Your task to perform on an android device: Go to wifi settings Image 0: 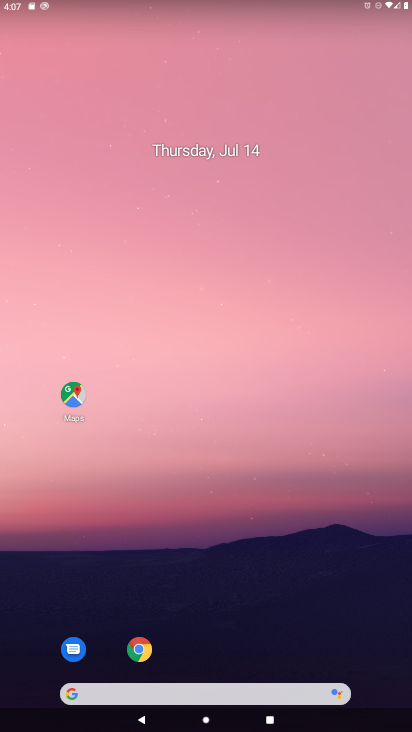
Step 0: drag from (206, 648) to (202, 236)
Your task to perform on an android device: Go to wifi settings Image 1: 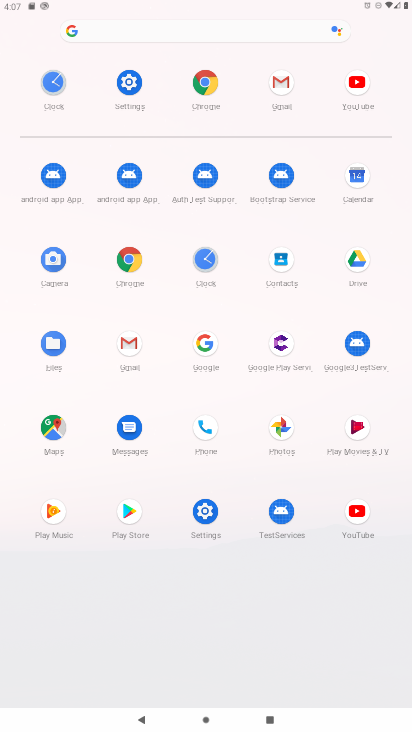
Step 1: click (133, 93)
Your task to perform on an android device: Go to wifi settings Image 2: 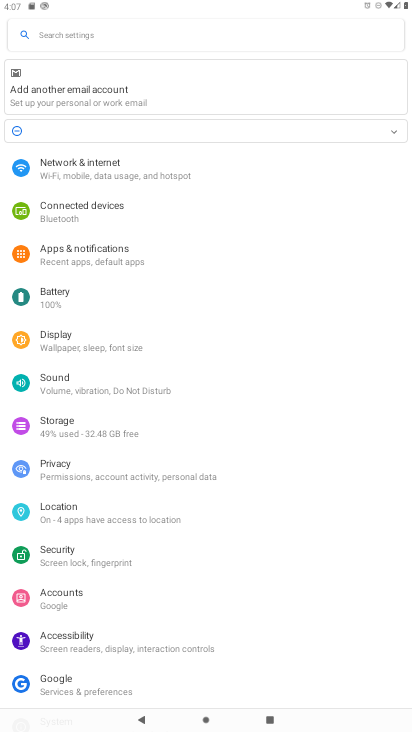
Step 2: click (121, 167)
Your task to perform on an android device: Go to wifi settings Image 3: 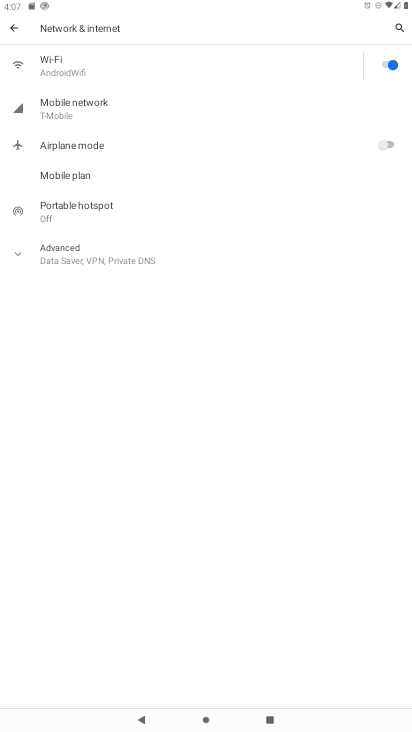
Step 3: click (110, 74)
Your task to perform on an android device: Go to wifi settings Image 4: 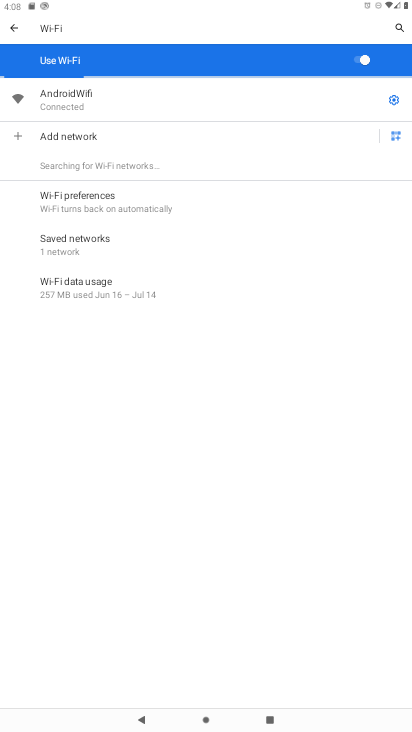
Step 4: task complete